Your task to perform on an android device: Open battery settings Image 0: 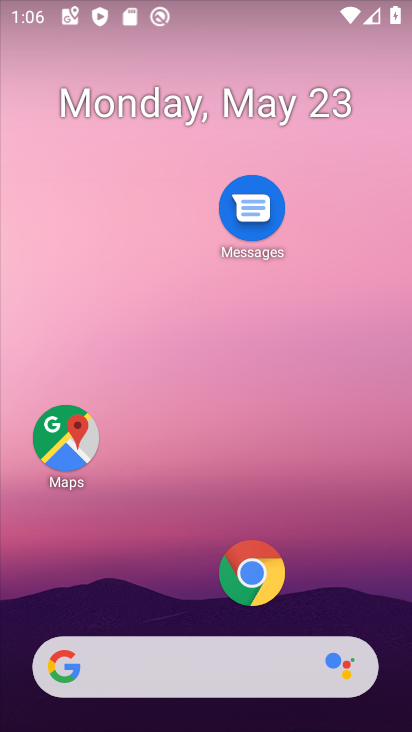
Step 0: drag from (306, 613) to (375, 86)
Your task to perform on an android device: Open battery settings Image 1: 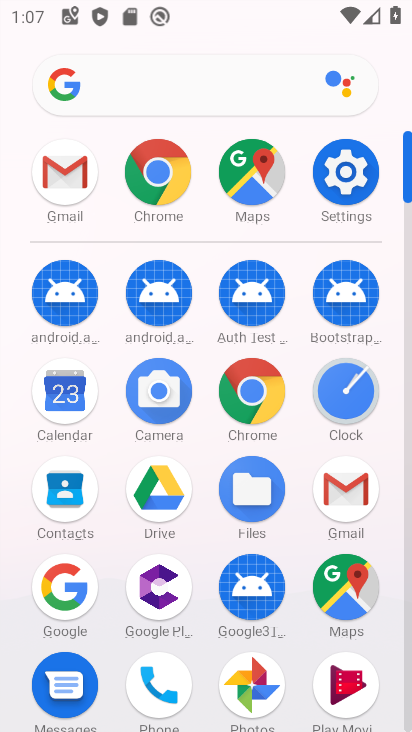
Step 1: click (353, 159)
Your task to perform on an android device: Open battery settings Image 2: 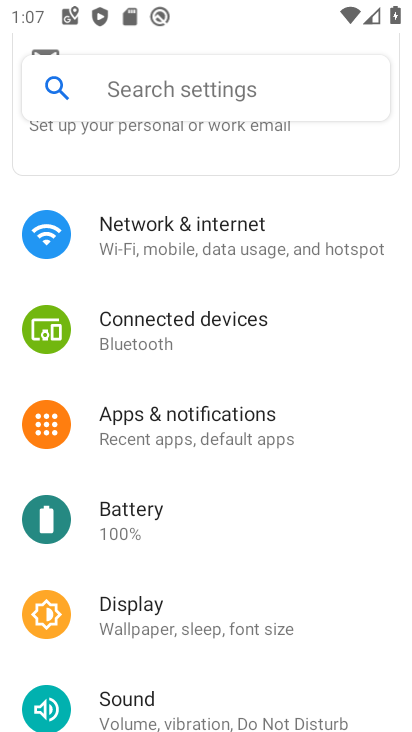
Step 2: click (146, 521)
Your task to perform on an android device: Open battery settings Image 3: 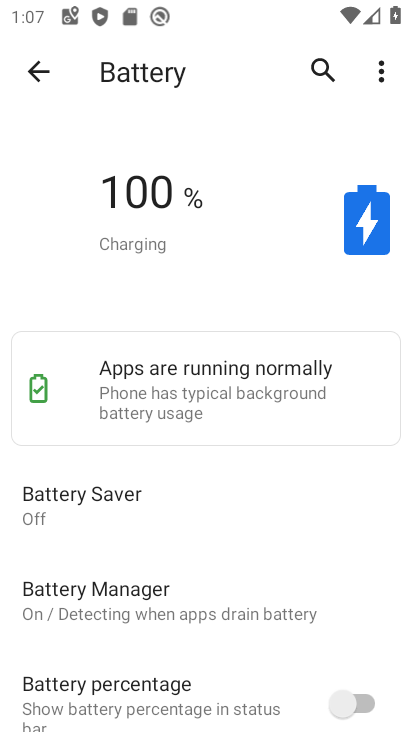
Step 3: task complete